Your task to perform on an android device: Set the phone to "Do not disturb". Image 0: 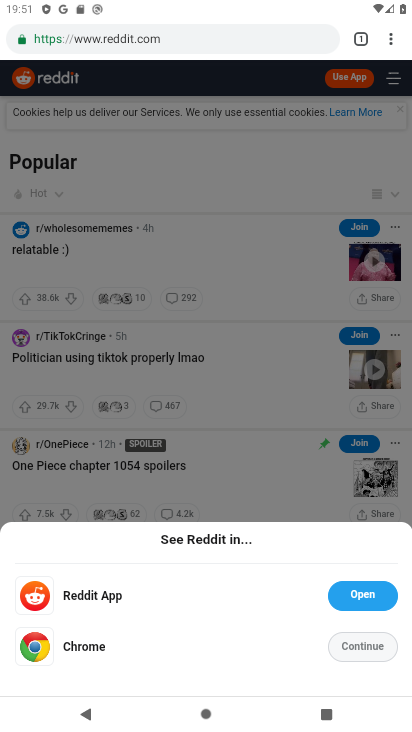
Step 0: press home button
Your task to perform on an android device: Set the phone to "Do not disturb". Image 1: 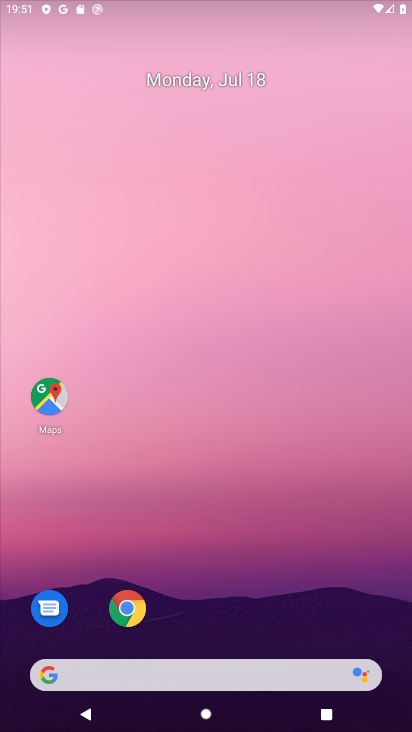
Step 1: drag from (190, 664) to (177, 101)
Your task to perform on an android device: Set the phone to "Do not disturb". Image 2: 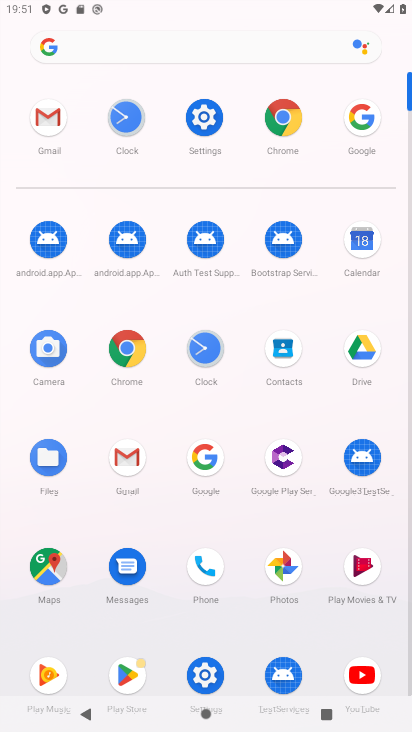
Step 2: click (205, 117)
Your task to perform on an android device: Set the phone to "Do not disturb". Image 3: 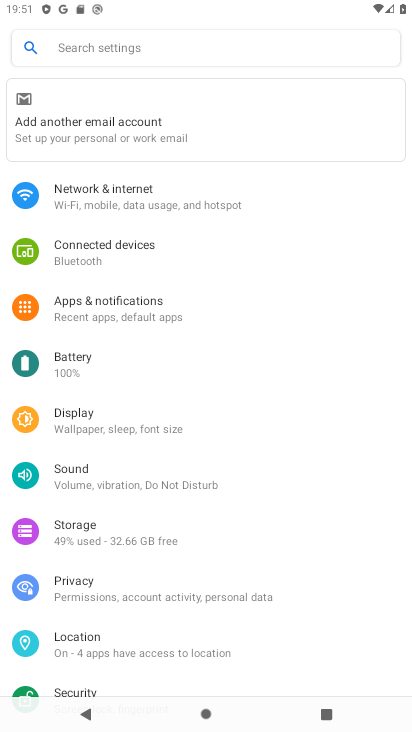
Step 3: click (147, 487)
Your task to perform on an android device: Set the phone to "Do not disturb". Image 4: 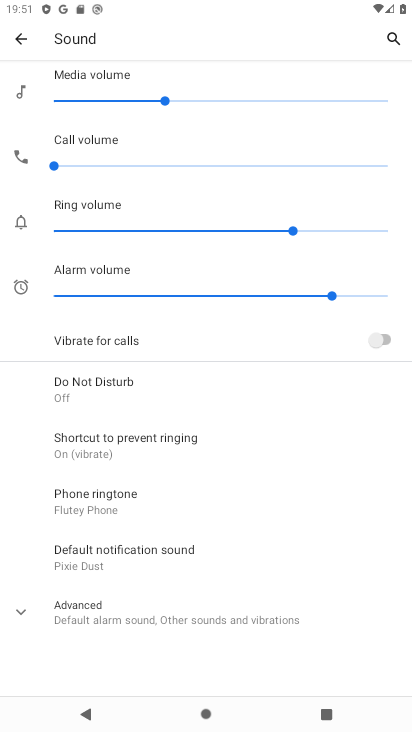
Step 4: click (126, 388)
Your task to perform on an android device: Set the phone to "Do not disturb". Image 5: 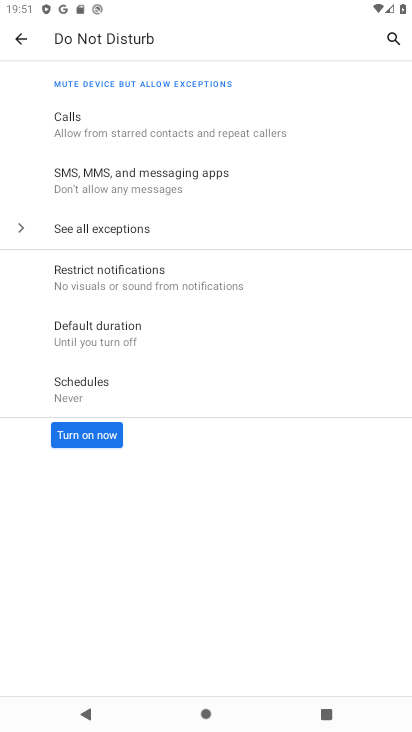
Step 5: click (78, 437)
Your task to perform on an android device: Set the phone to "Do not disturb". Image 6: 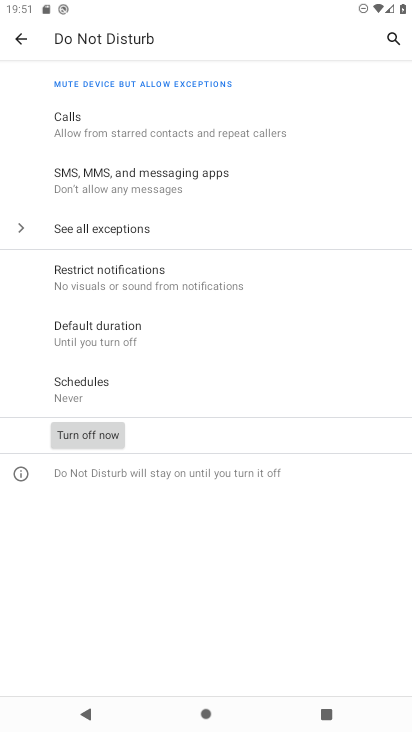
Step 6: task complete